Your task to perform on an android device: Open sound settings Image 0: 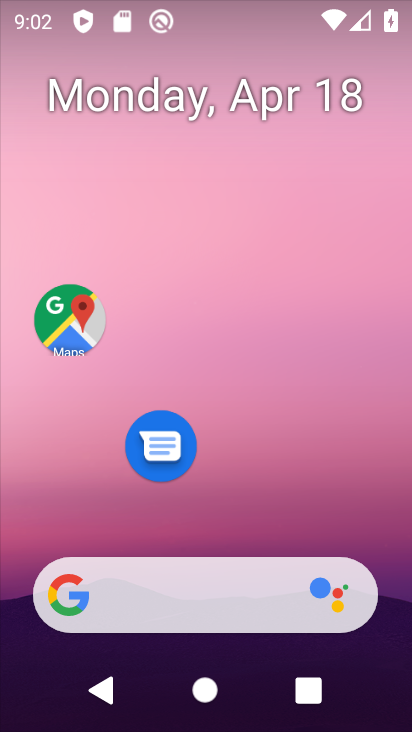
Step 0: drag from (230, 495) to (264, 0)
Your task to perform on an android device: Open sound settings Image 1: 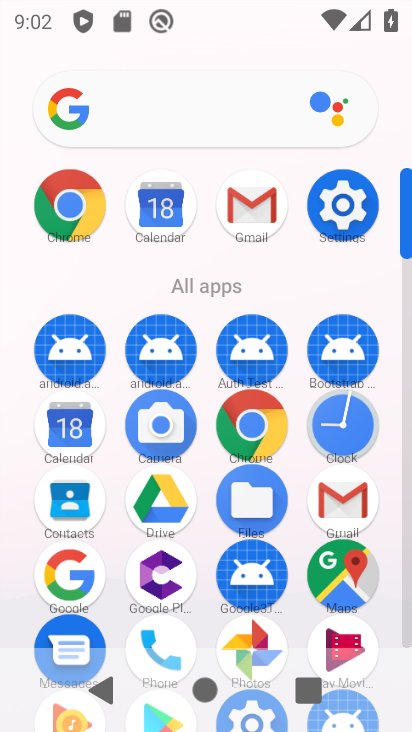
Step 1: press home button
Your task to perform on an android device: Open sound settings Image 2: 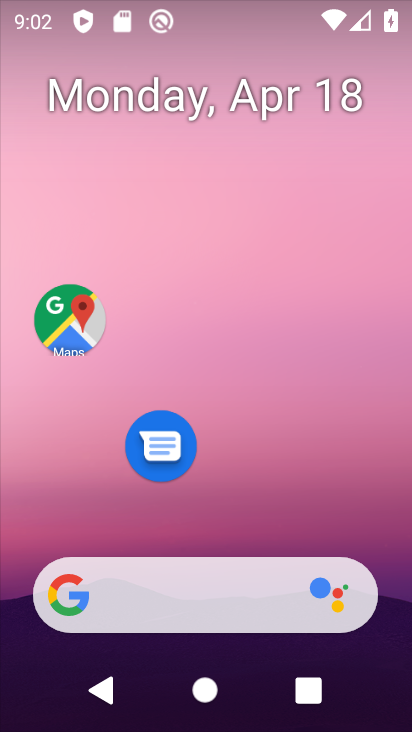
Step 2: drag from (231, 517) to (290, 76)
Your task to perform on an android device: Open sound settings Image 3: 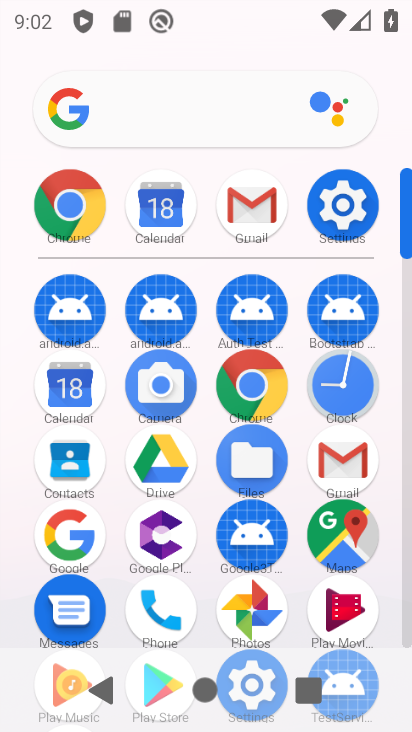
Step 3: click (342, 196)
Your task to perform on an android device: Open sound settings Image 4: 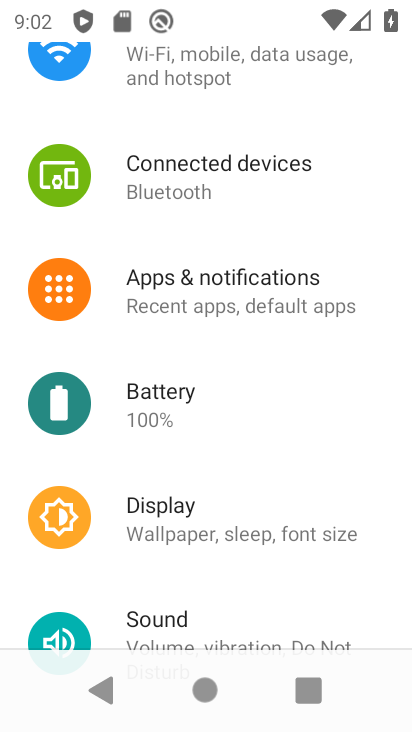
Step 4: click (197, 614)
Your task to perform on an android device: Open sound settings Image 5: 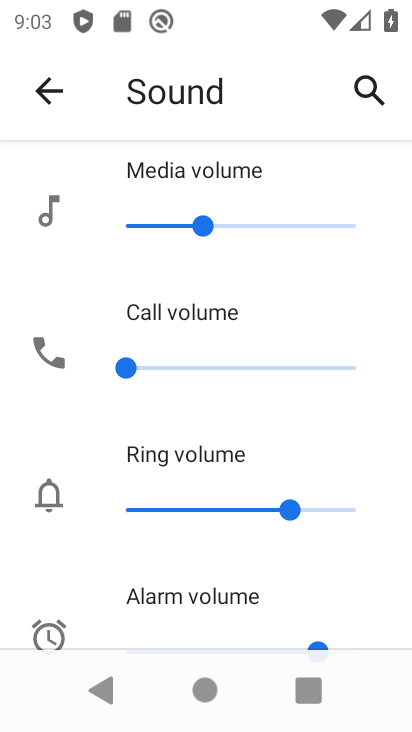
Step 5: drag from (221, 564) to (325, 230)
Your task to perform on an android device: Open sound settings Image 6: 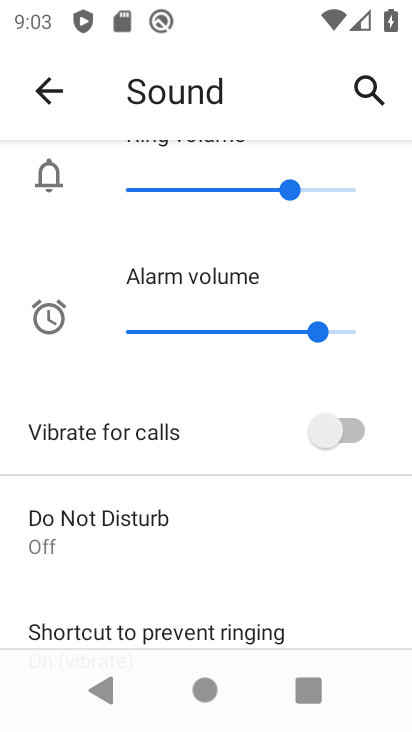
Step 6: drag from (195, 595) to (278, 283)
Your task to perform on an android device: Open sound settings Image 7: 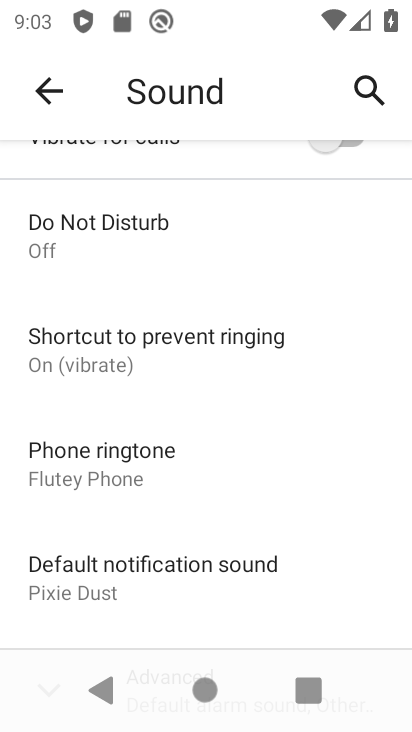
Step 7: drag from (189, 563) to (222, 227)
Your task to perform on an android device: Open sound settings Image 8: 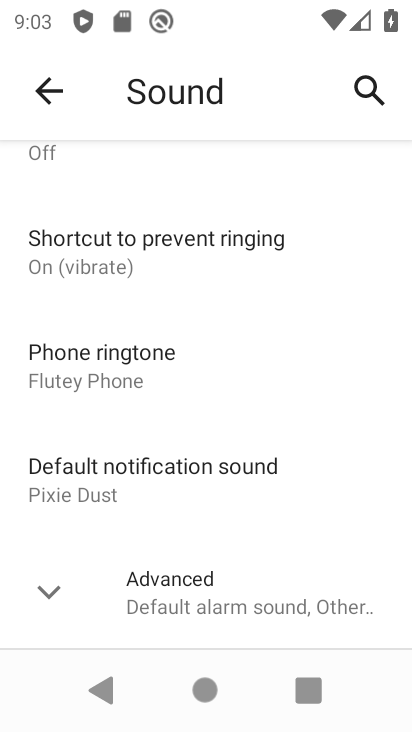
Step 8: click (57, 586)
Your task to perform on an android device: Open sound settings Image 9: 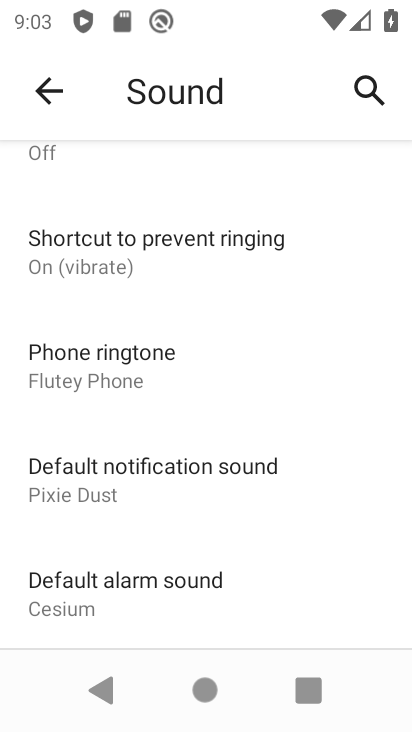
Step 9: task complete